Your task to perform on an android device: check data usage Image 0: 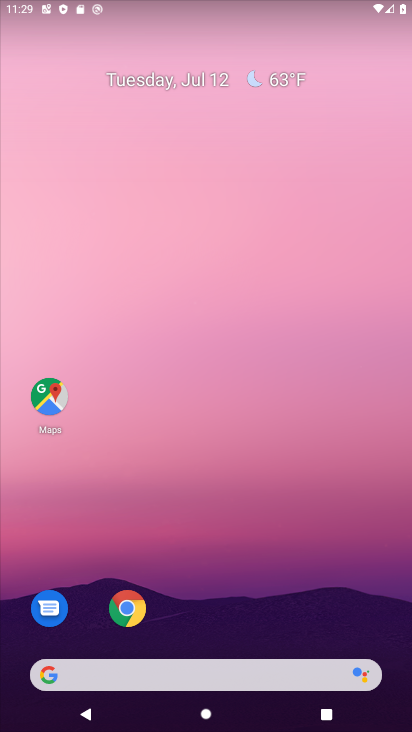
Step 0: drag from (251, 629) to (296, 42)
Your task to perform on an android device: check data usage Image 1: 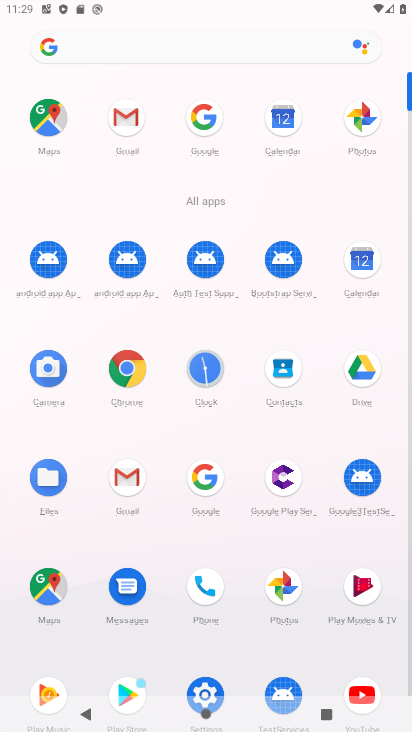
Step 1: drag from (213, 653) to (224, 368)
Your task to perform on an android device: check data usage Image 2: 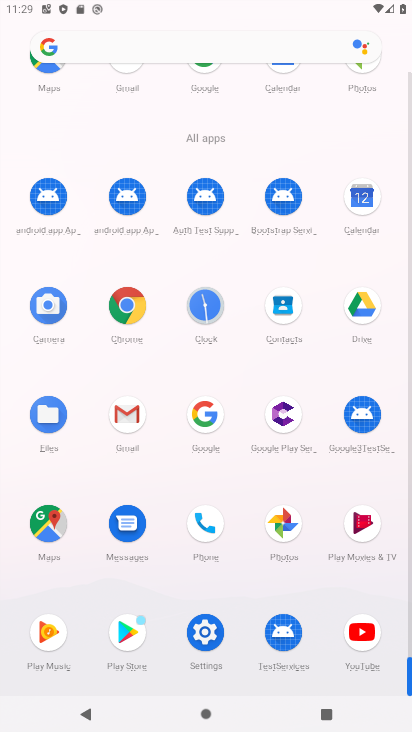
Step 2: click (206, 631)
Your task to perform on an android device: check data usage Image 3: 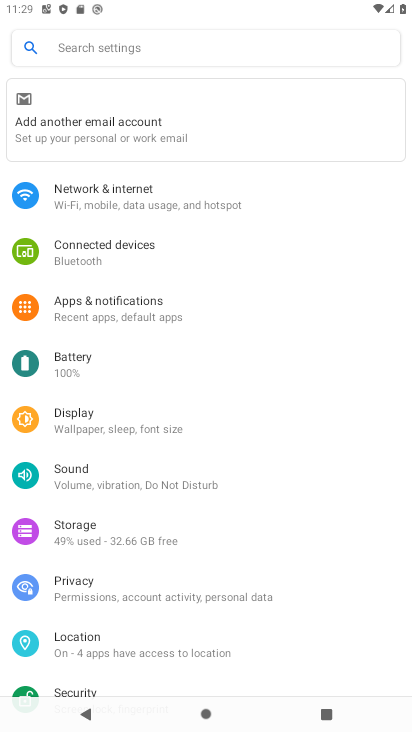
Step 3: click (147, 204)
Your task to perform on an android device: check data usage Image 4: 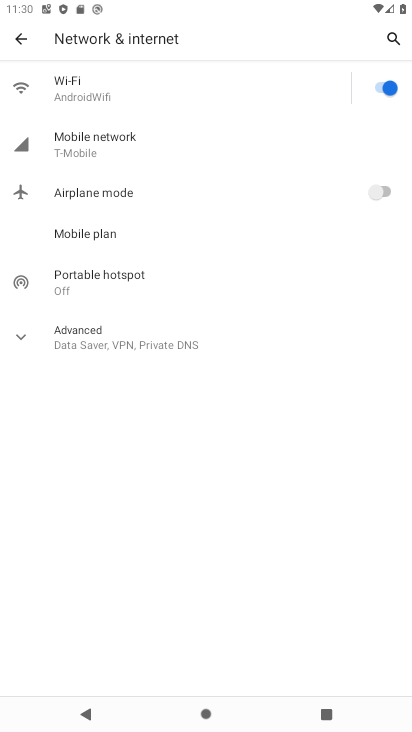
Step 4: click (130, 149)
Your task to perform on an android device: check data usage Image 5: 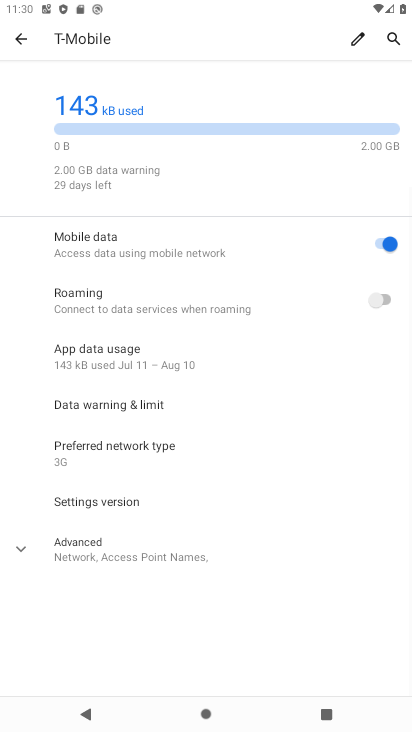
Step 5: task complete